Your task to perform on an android device: Search for the best 100% cotton t-shirts Image 0: 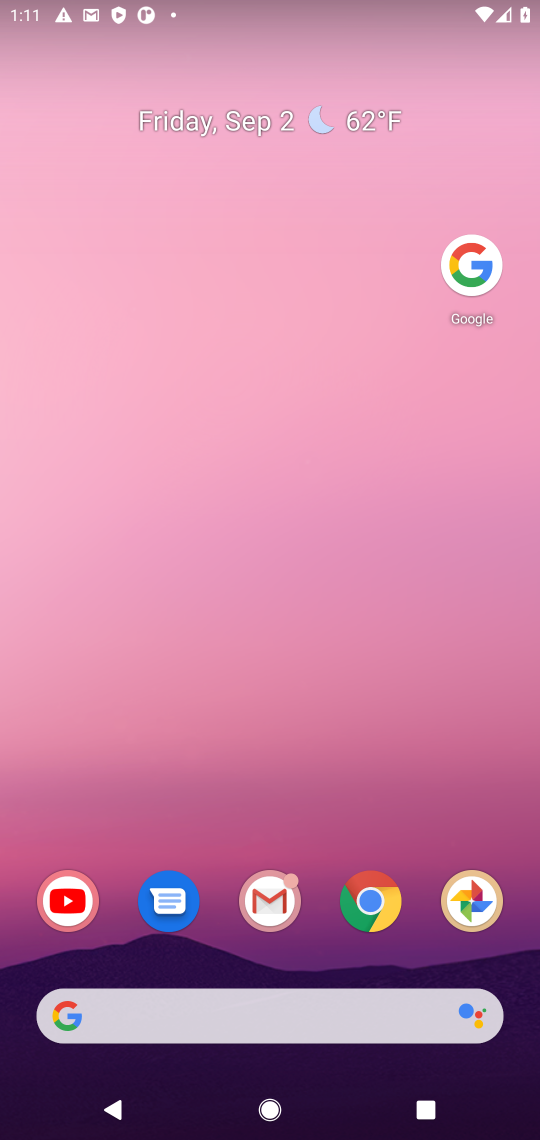
Step 0: click (320, 324)
Your task to perform on an android device: Search for the best 100% cotton t-shirts Image 1: 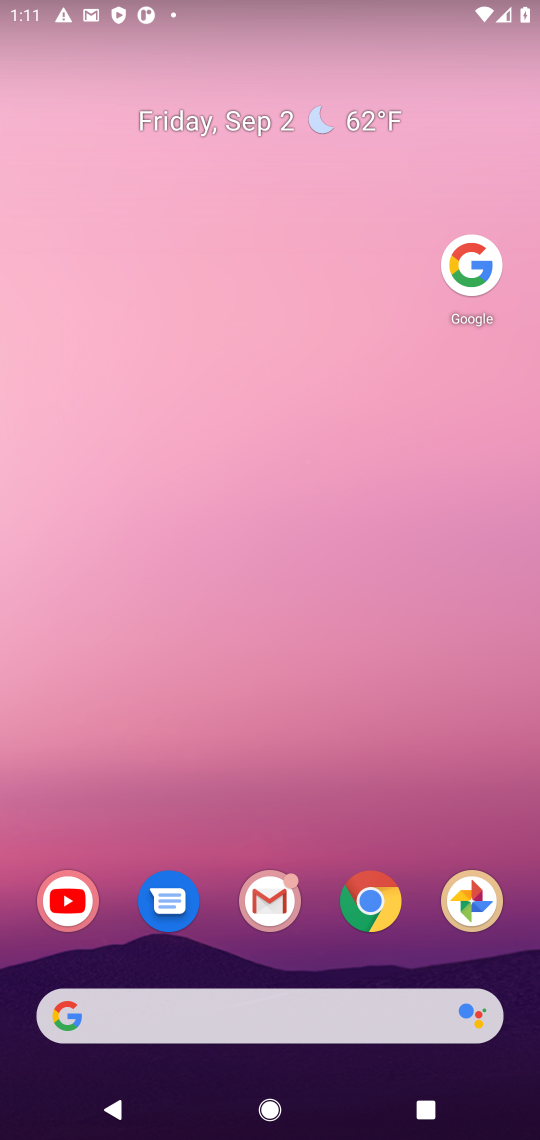
Step 1: drag from (313, 1020) to (289, 254)
Your task to perform on an android device: Search for the best 100% cotton t-shirts Image 2: 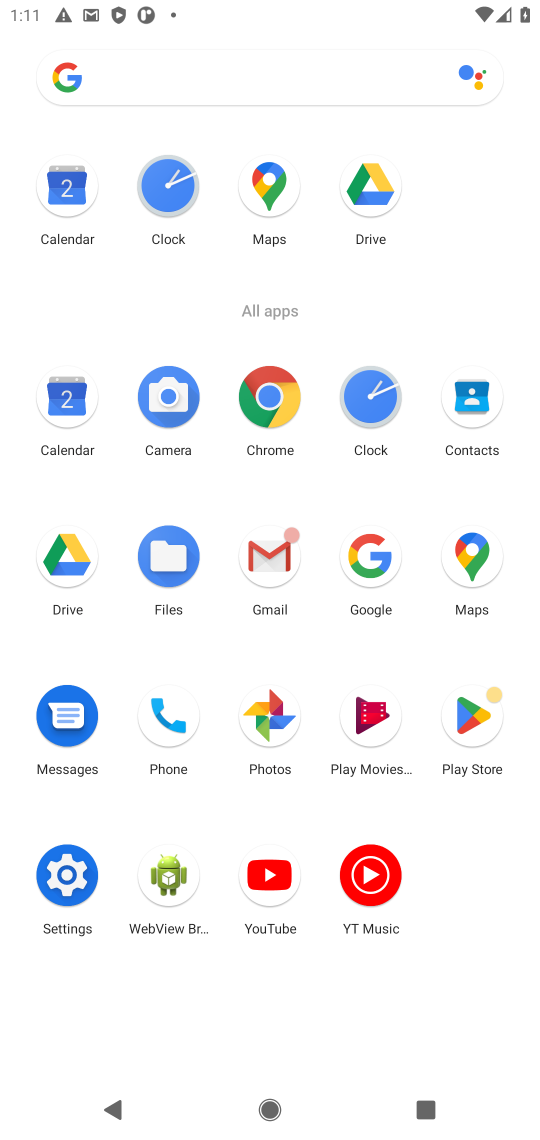
Step 2: click (361, 536)
Your task to perform on an android device: Search for the best 100% cotton t-shirts Image 3: 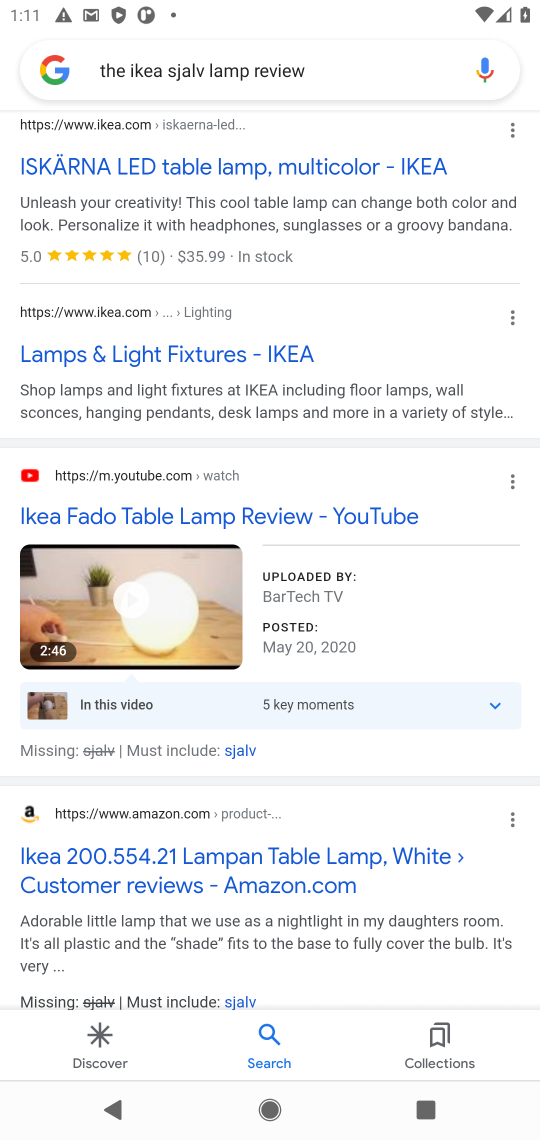
Step 3: click (349, 73)
Your task to perform on an android device: Search for the best 100% cotton t-shirts Image 4: 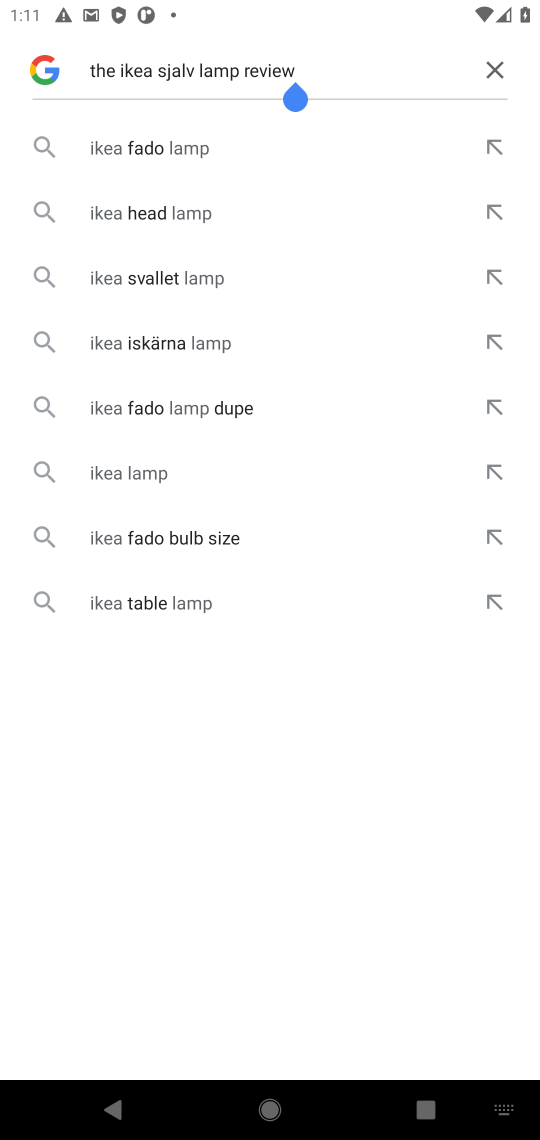
Step 4: click (490, 68)
Your task to perform on an android device: Search for the best 100% cotton t-shirts Image 5: 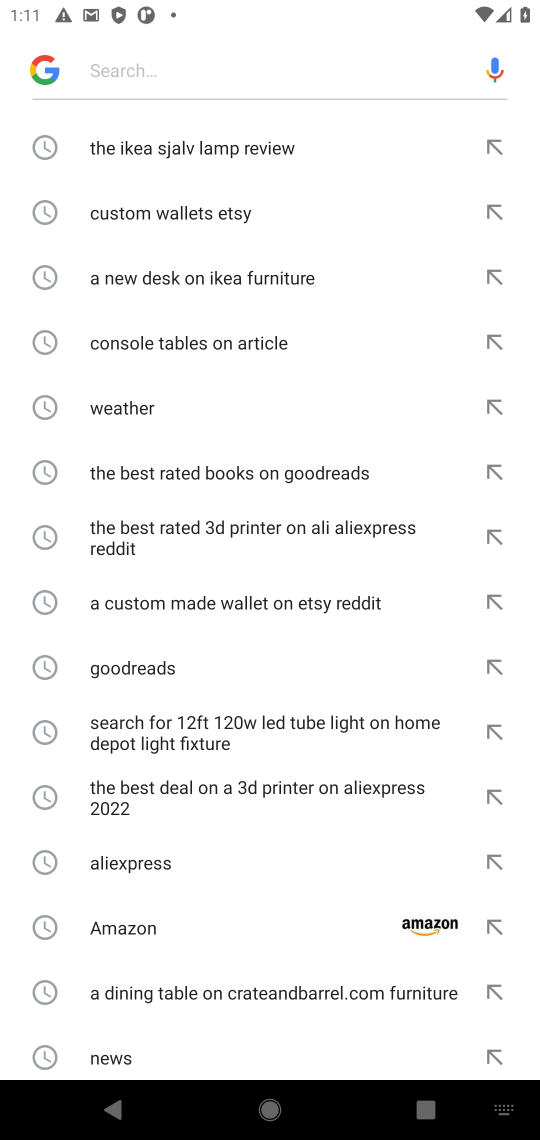
Step 5: click (263, 48)
Your task to perform on an android device: Search for the best 100% cotton t-shirts Image 6: 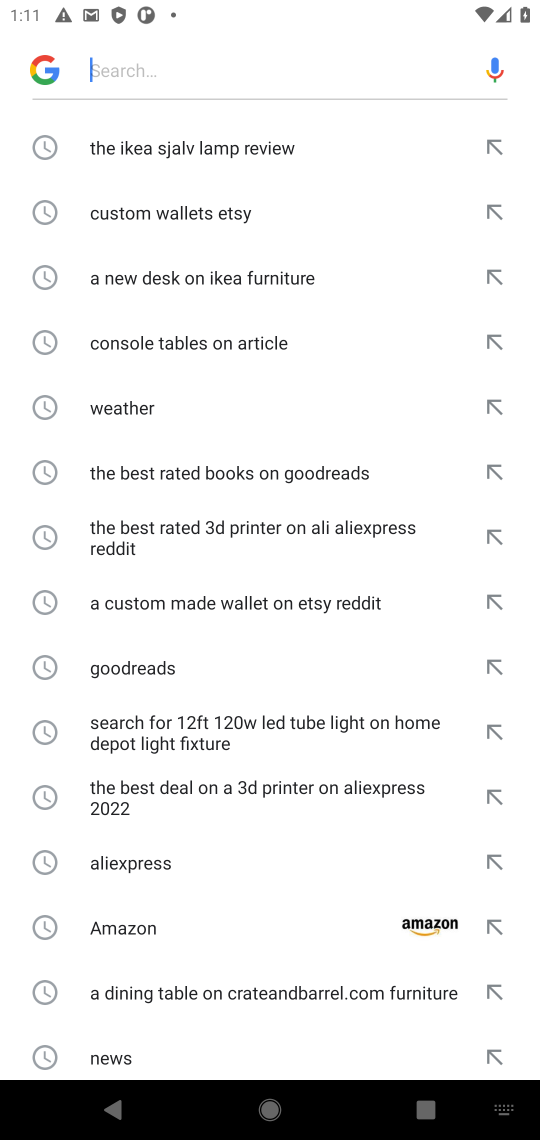
Step 6: type "the best 100% cotton t-shirts "
Your task to perform on an android device: Search for the best 100% cotton t-shirts Image 7: 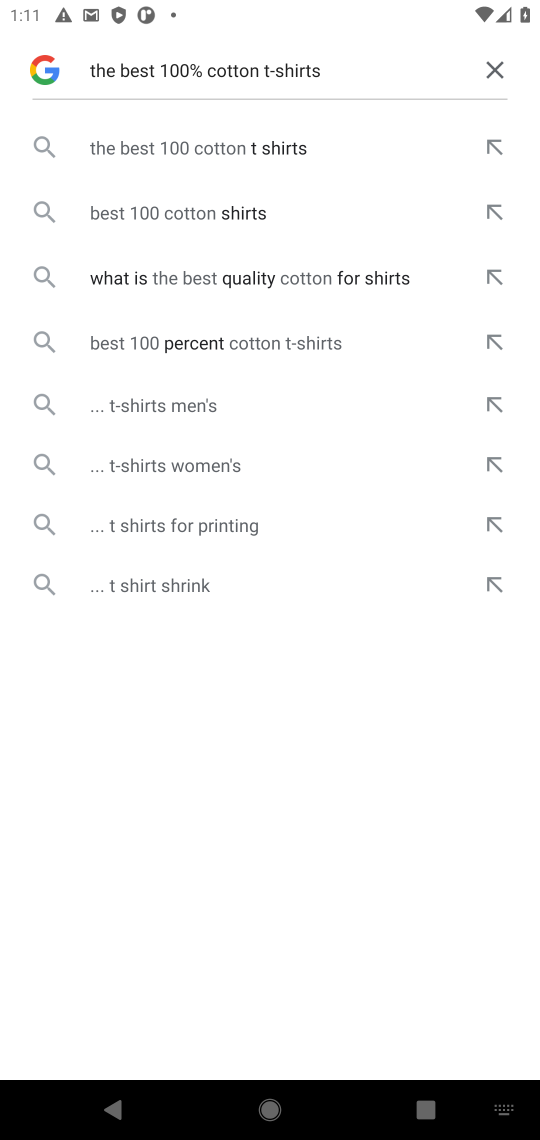
Step 7: click (169, 138)
Your task to perform on an android device: Search for the best 100% cotton t-shirts Image 8: 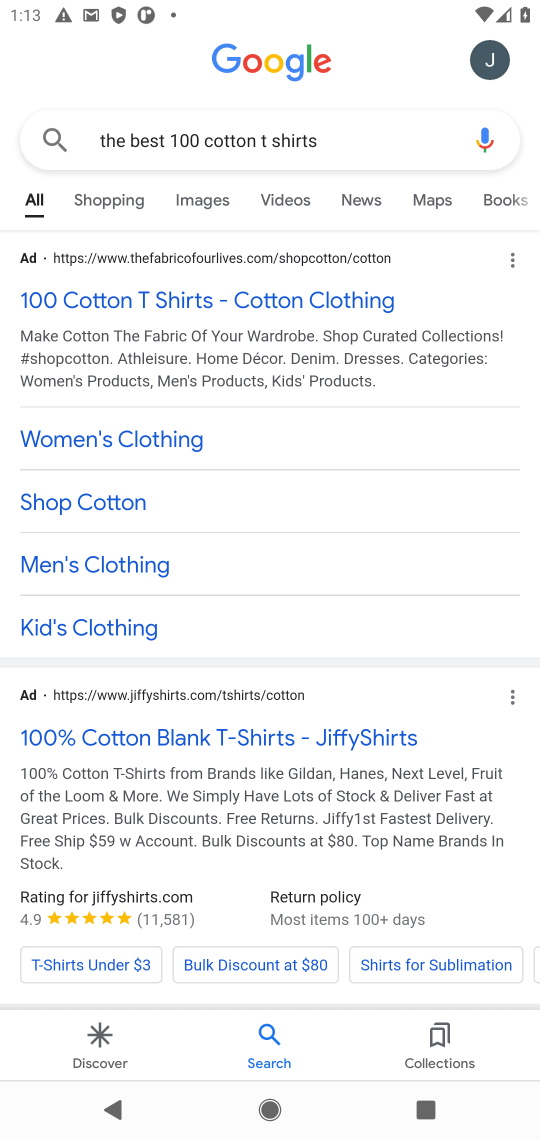
Step 8: task complete